Your task to perform on an android device: turn off notifications settings in the gmail app Image 0: 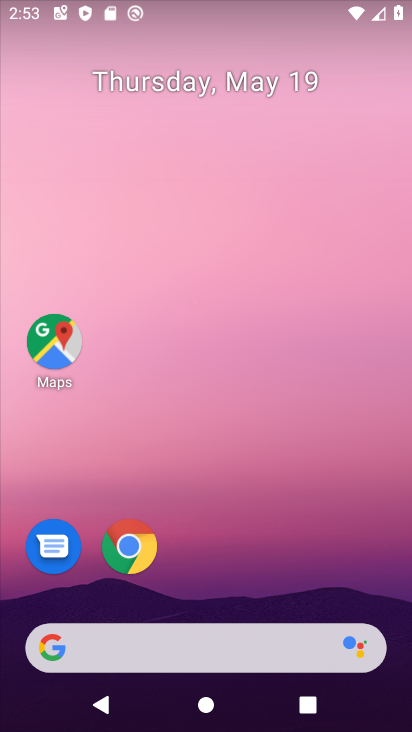
Step 0: drag from (254, 569) to (244, 83)
Your task to perform on an android device: turn off notifications settings in the gmail app Image 1: 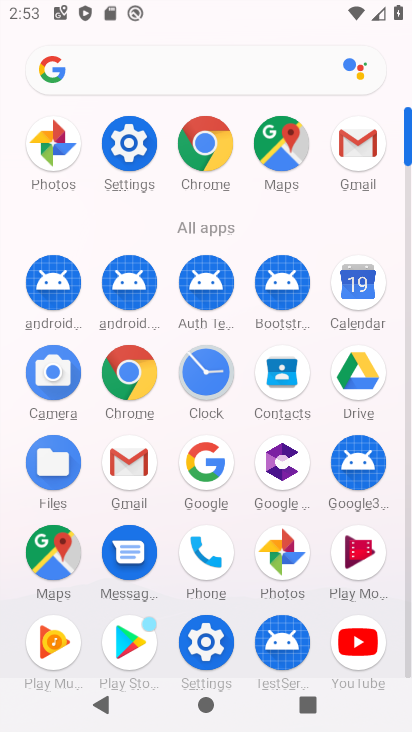
Step 1: drag from (241, 520) to (255, 354)
Your task to perform on an android device: turn off notifications settings in the gmail app Image 2: 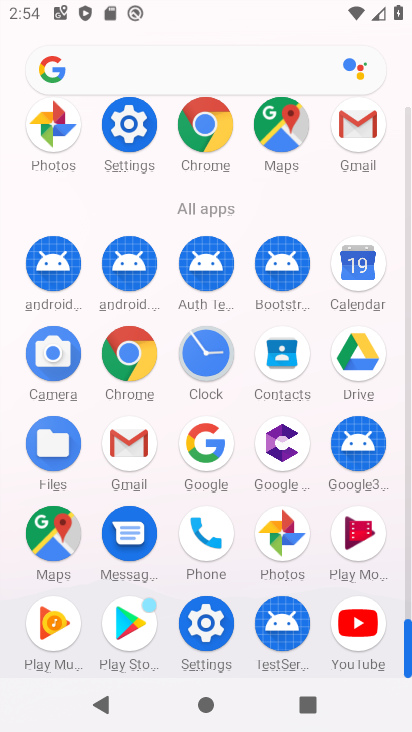
Step 2: click (356, 120)
Your task to perform on an android device: turn off notifications settings in the gmail app Image 3: 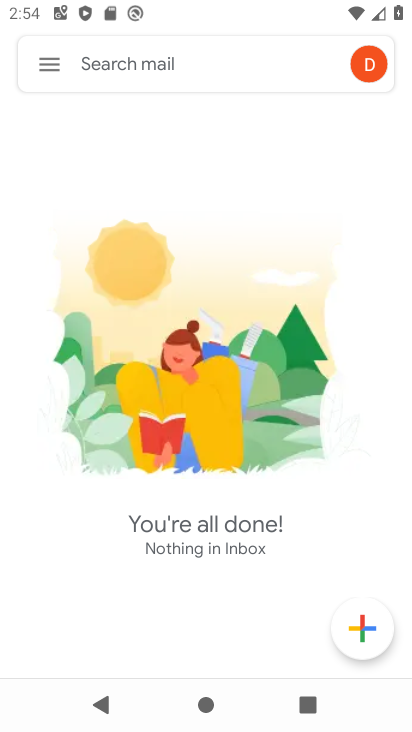
Step 3: click (44, 67)
Your task to perform on an android device: turn off notifications settings in the gmail app Image 4: 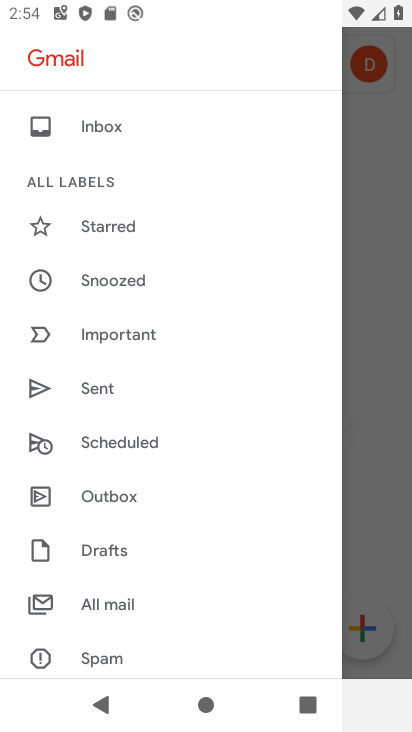
Step 4: drag from (127, 458) to (162, 396)
Your task to perform on an android device: turn off notifications settings in the gmail app Image 5: 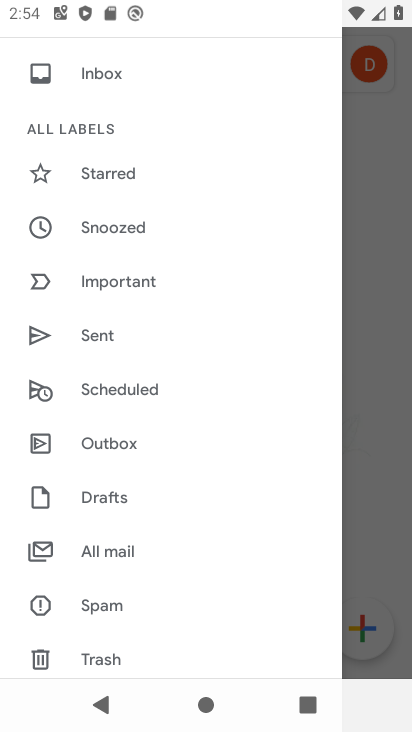
Step 5: drag from (120, 481) to (156, 417)
Your task to perform on an android device: turn off notifications settings in the gmail app Image 6: 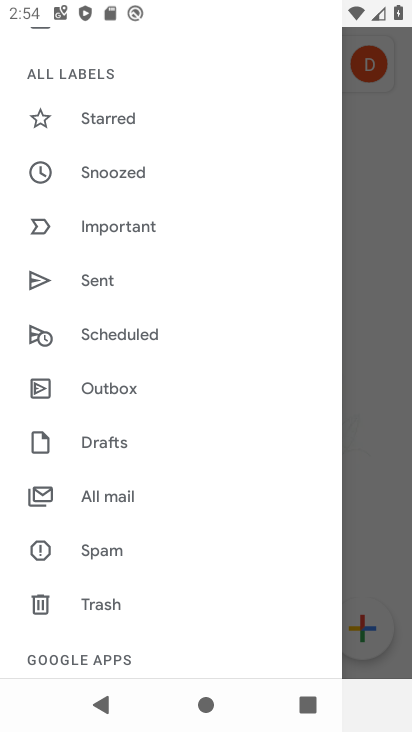
Step 6: drag from (108, 457) to (144, 383)
Your task to perform on an android device: turn off notifications settings in the gmail app Image 7: 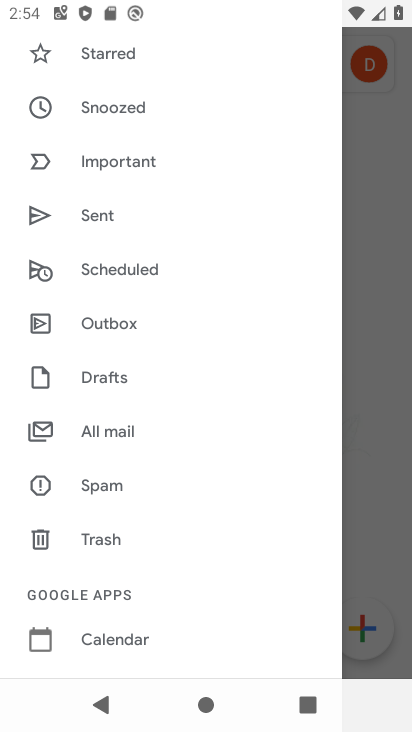
Step 7: drag from (108, 458) to (161, 381)
Your task to perform on an android device: turn off notifications settings in the gmail app Image 8: 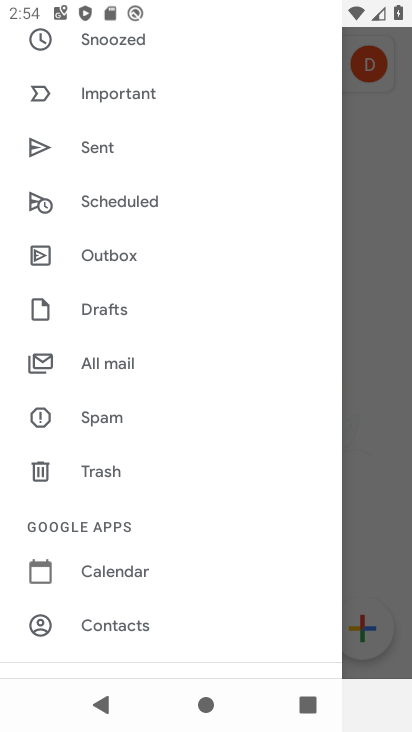
Step 8: drag from (101, 489) to (159, 410)
Your task to perform on an android device: turn off notifications settings in the gmail app Image 9: 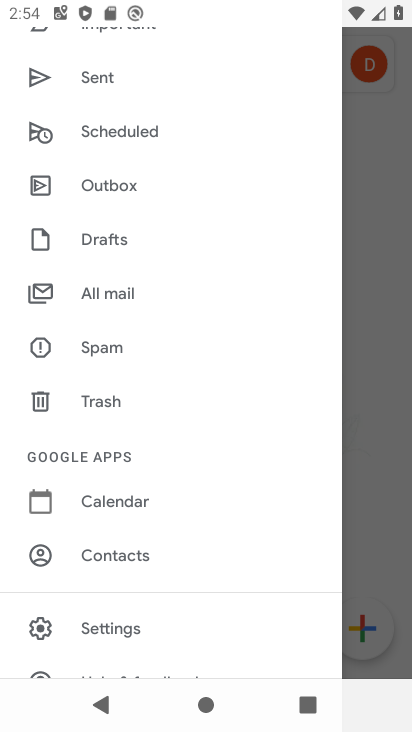
Step 9: drag from (108, 513) to (169, 428)
Your task to perform on an android device: turn off notifications settings in the gmail app Image 10: 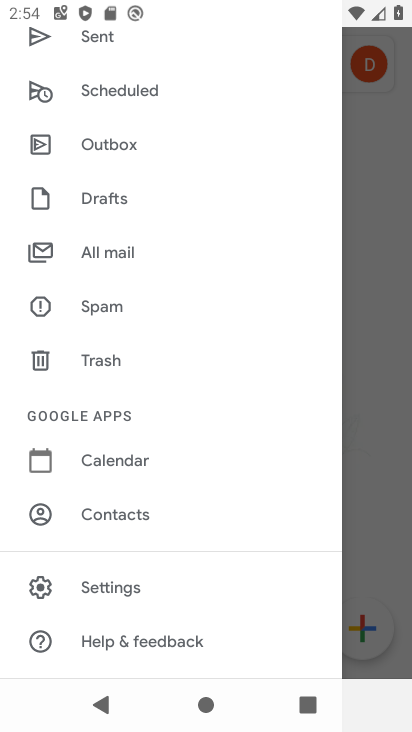
Step 10: click (99, 582)
Your task to perform on an android device: turn off notifications settings in the gmail app Image 11: 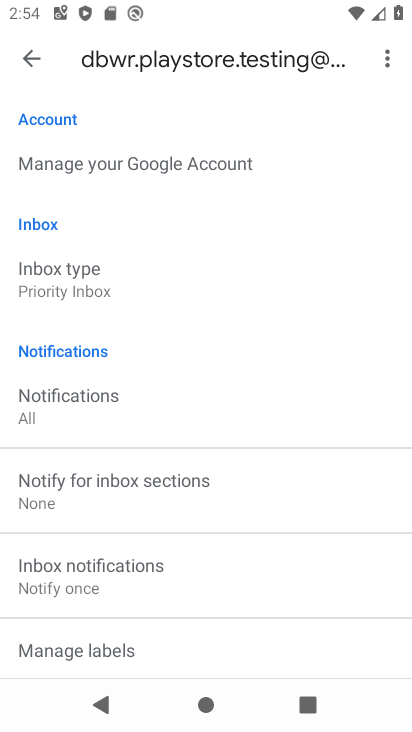
Step 11: drag from (110, 488) to (129, 415)
Your task to perform on an android device: turn off notifications settings in the gmail app Image 12: 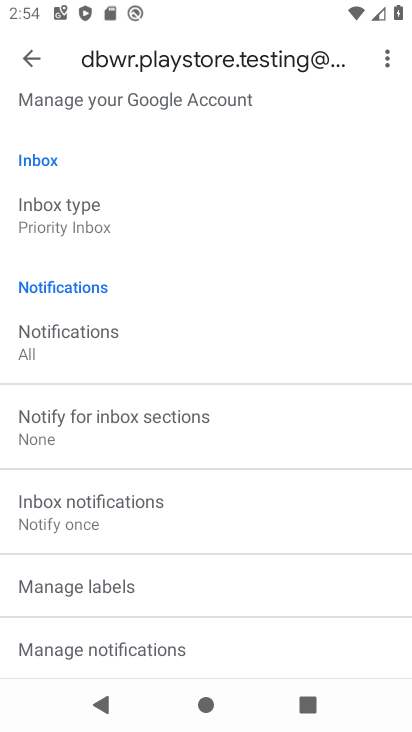
Step 12: click (64, 644)
Your task to perform on an android device: turn off notifications settings in the gmail app Image 13: 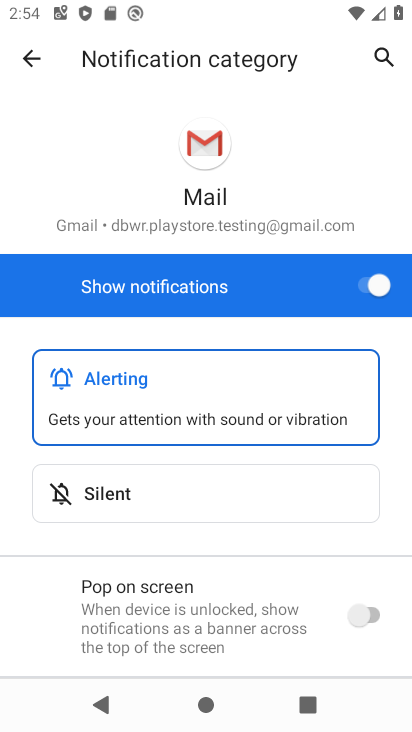
Step 13: click (384, 280)
Your task to perform on an android device: turn off notifications settings in the gmail app Image 14: 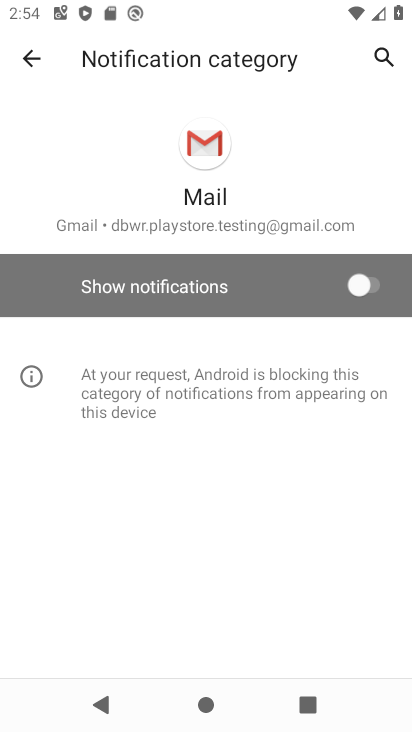
Step 14: task complete